Your task to perform on an android device: see creations saved in the google photos Image 0: 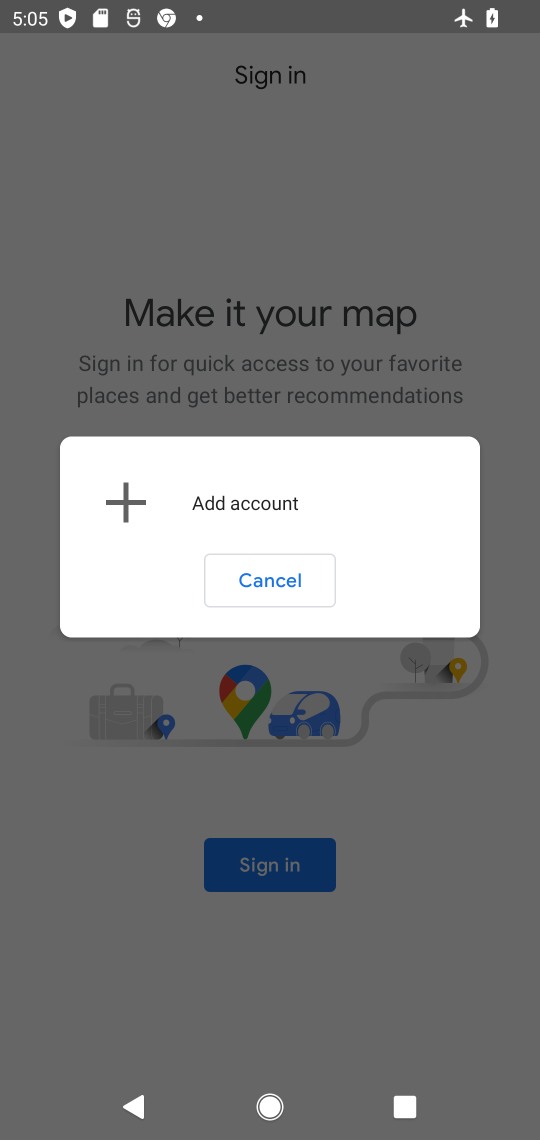
Step 0: press home button
Your task to perform on an android device: see creations saved in the google photos Image 1: 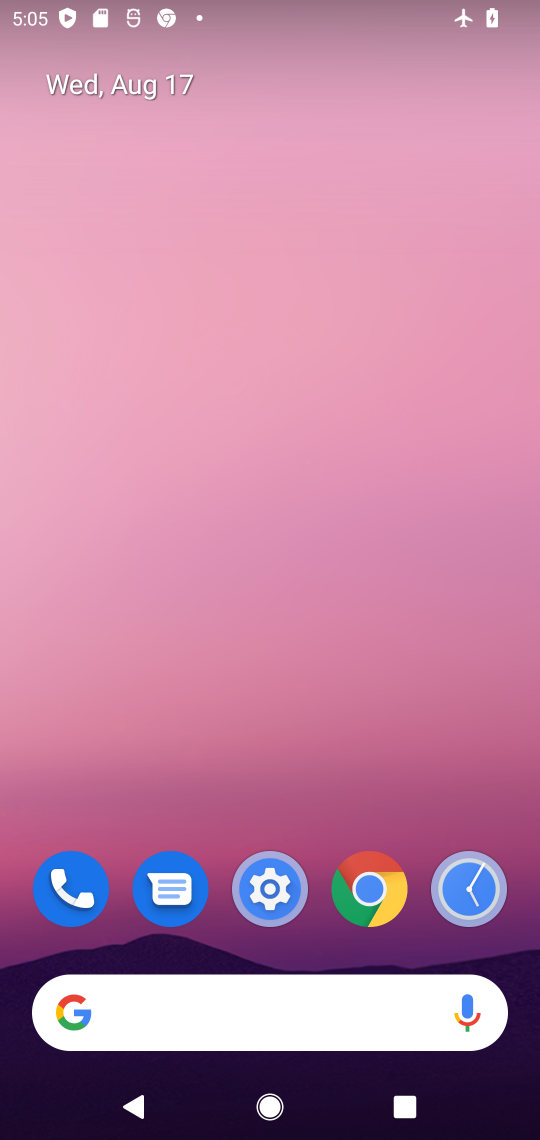
Step 1: drag from (292, 777) to (316, 149)
Your task to perform on an android device: see creations saved in the google photos Image 2: 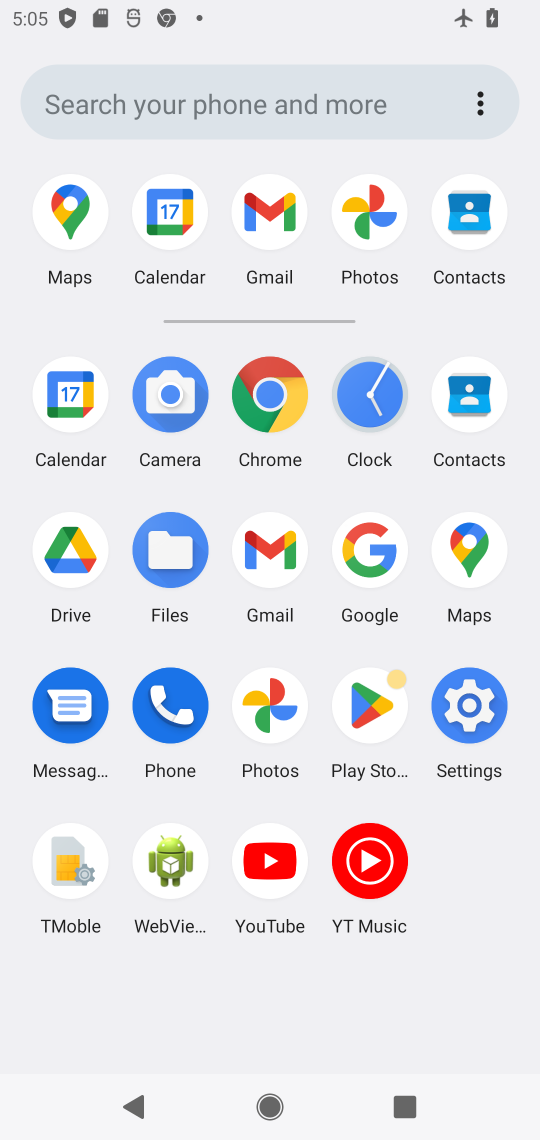
Step 2: click (372, 213)
Your task to perform on an android device: see creations saved in the google photos Image 3: 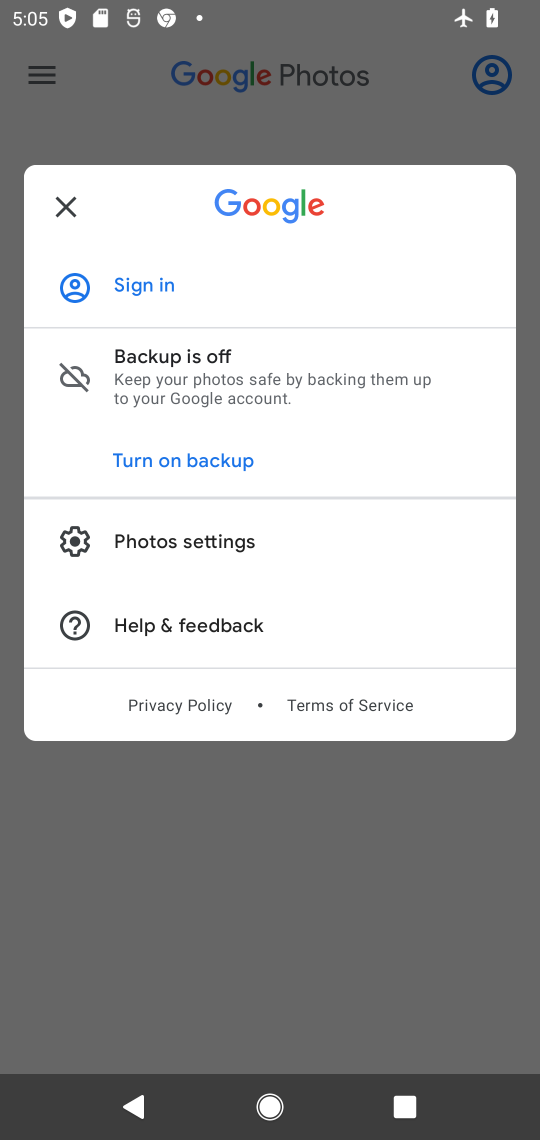
Step 3: click (65, 202)
Your task to perform on an android device: see creations saved in the google photos Image 4: 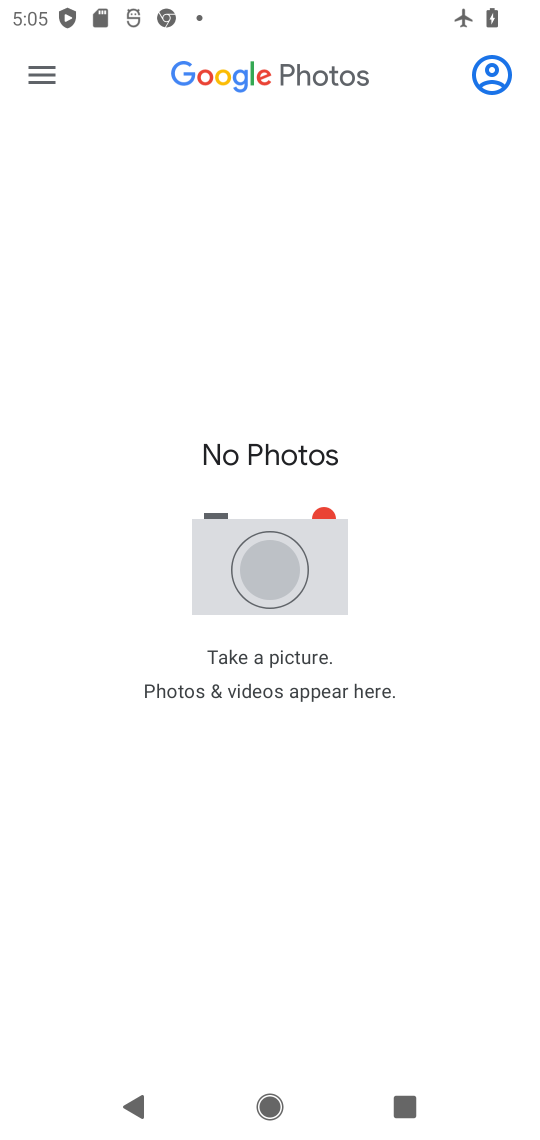
Step 4: click (35, 70)
Your task to perform on an android device: see creations saved in the google photos Image 5: 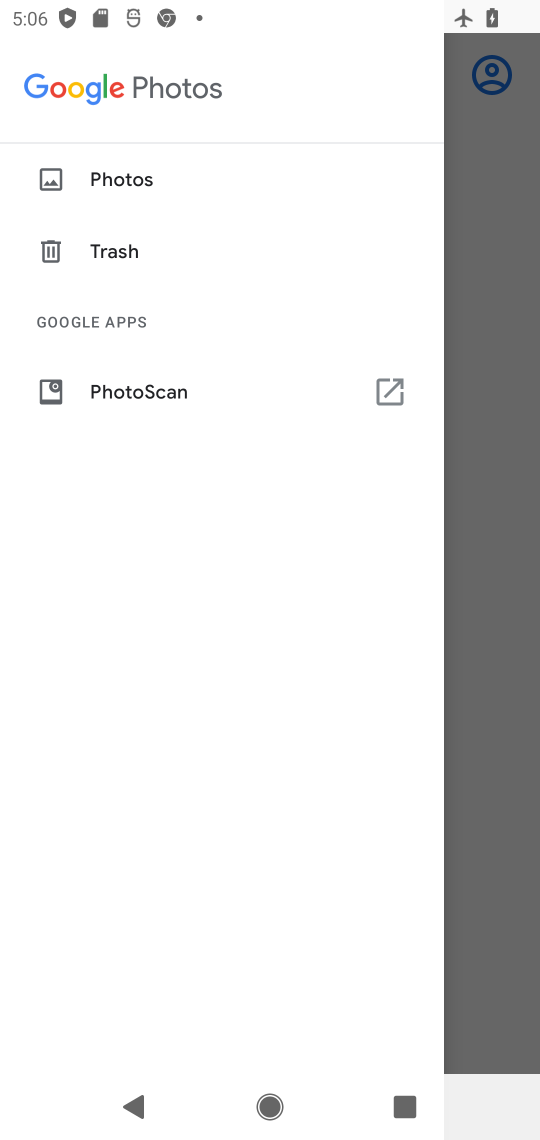
Step 5: click (487, 273)
Your task to perform on an android device: see creations saved in the google photos Image 6: 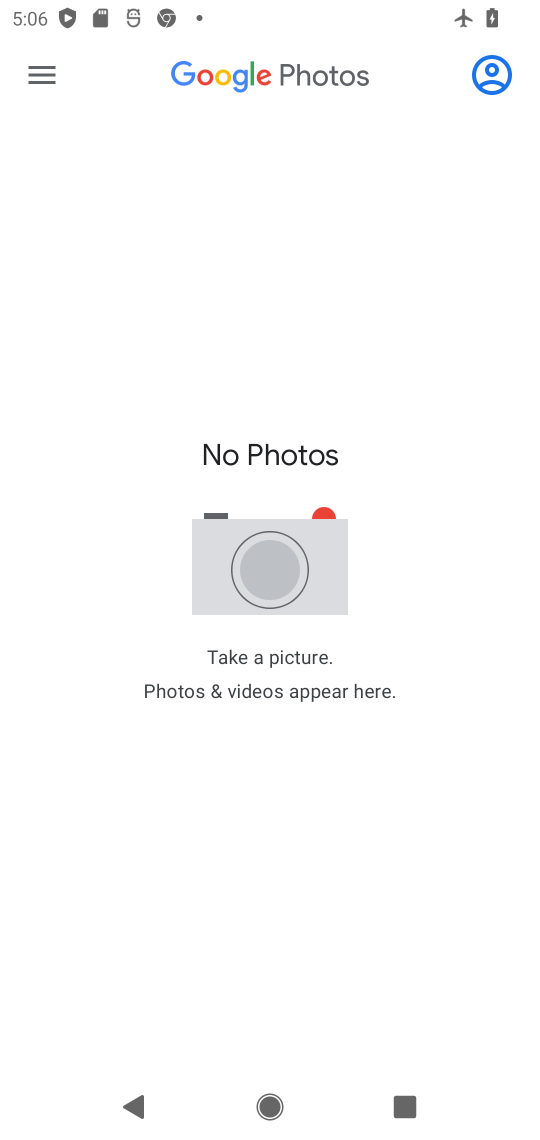
Step 6: task complete